Your task to perform on an android device: open the mobile data screen to see how much data has been used Image 0: 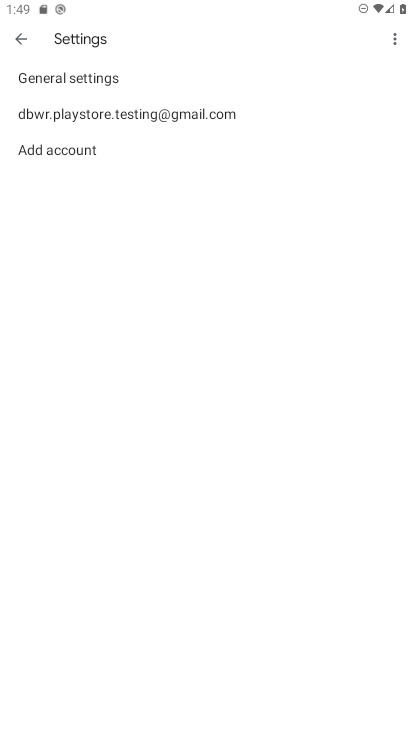
Step 0: press home button
Your task to perform on an android device: open the mobile data screen to see how much data has been used Image 1: 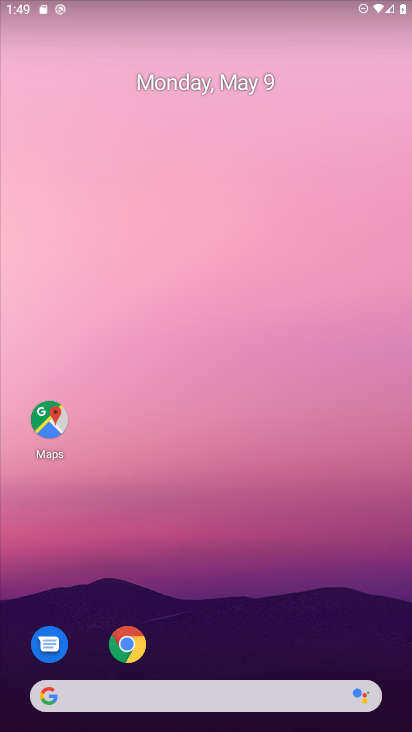
Step 1: drag from (271, 506) to (273, 240)
Your task to perform on an android device: open the mobile data screen to see how much data has been used Image 2: 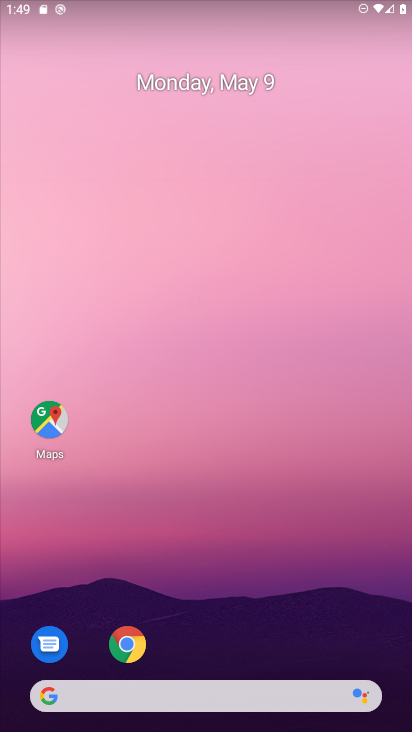
Step 2: drag from (254, 288) to (256, 70)
Your task to perform on an android device: open the mobile data screen to see how much data has been used Image 3: 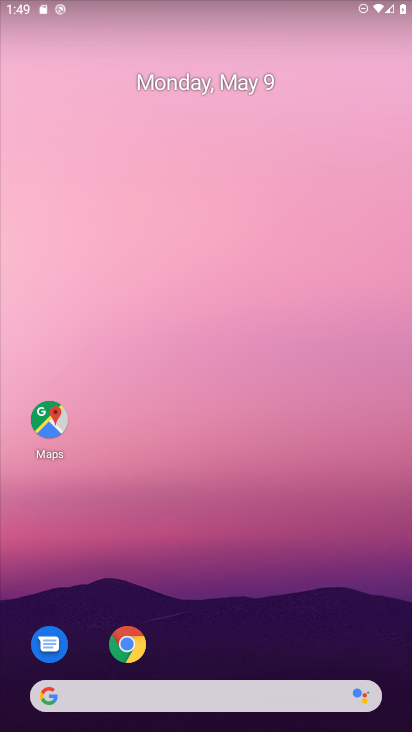
Step 3: drag from (230, 213) to (243, 162)
Your task to perform on an android device: open the mobile data screen to see how much data has been used Image 4: 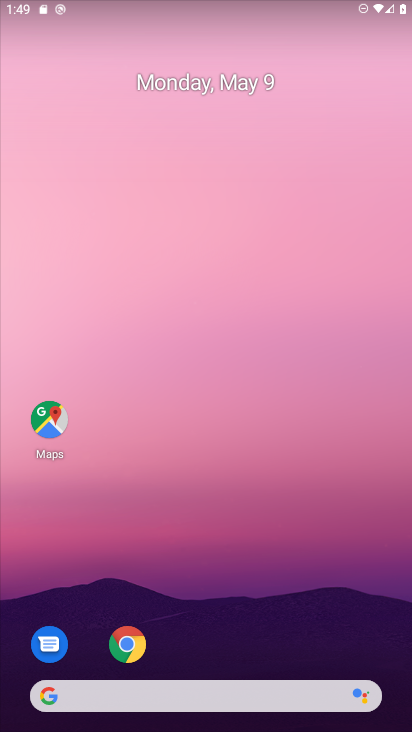
Step 4: drag from (261, 165) to (266, 72)
Your task to perform on an android device: open the mobile data screen to see how much data has been used Image 5: 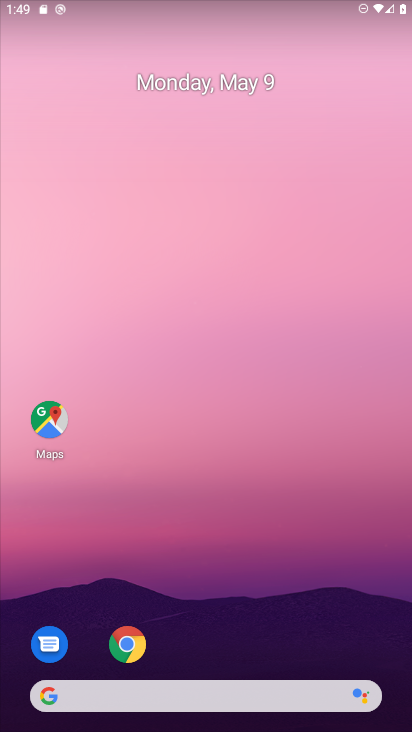
Step 5: drag from (260, 614) to (287, 340)
Your task to perform on an android device: open the mobile data screen to see how much data has been used Image 6: 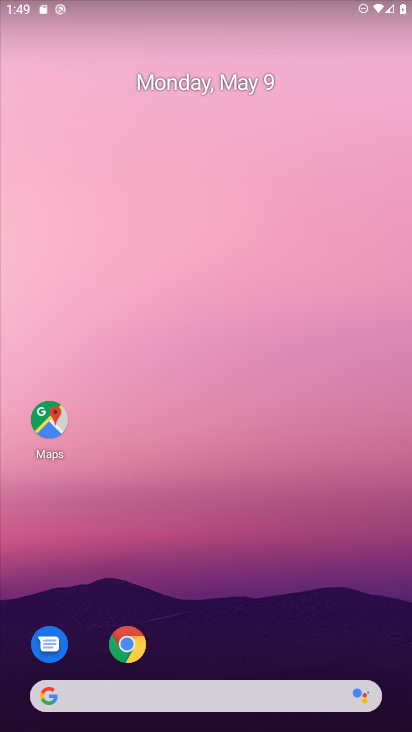
Step 6: drag from (274, 648) to (251, 33)
Your task to perform on an android device: open the mobile data screen to see how much data has been used Image 7: 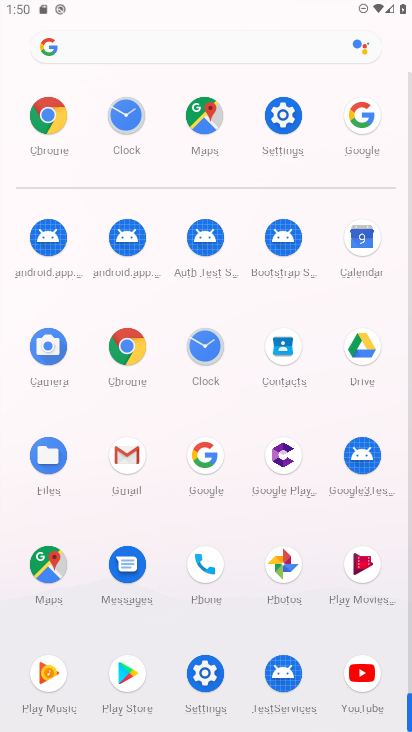
Step 7: click (292, 138)
Your task to perform on an android device: open the mobile data screen to see how much data has been used Image 8: 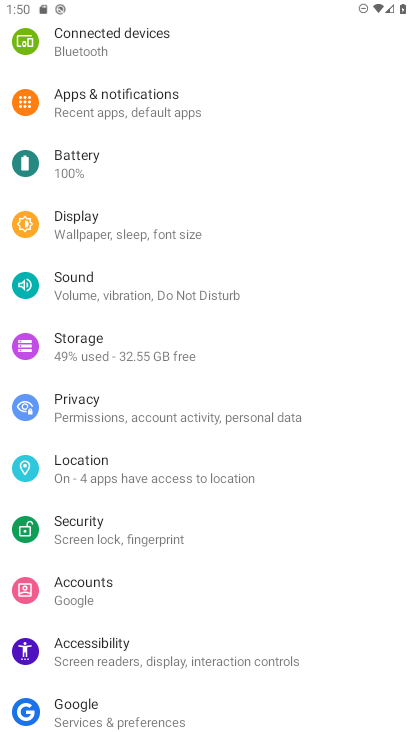
Step 8: drag from (211, 141) to (150, 530)
Your task to perform on an android device: open the mobile data screen to see how much data has been used Image 9: 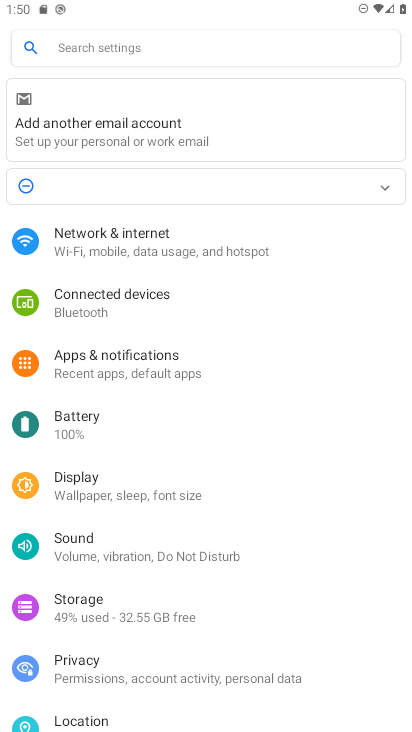
Step 9: click (136, 234)
Your task to perform on an android device: open the mobile data screen to see how much data has been used Image 10: 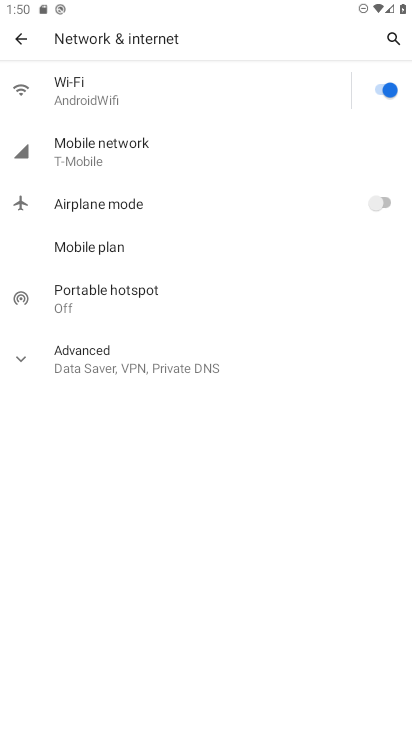
Step 10: click (95, 161)
Your task to perform on an android device: open the mobile data screen to see how much data has been used Image 11: 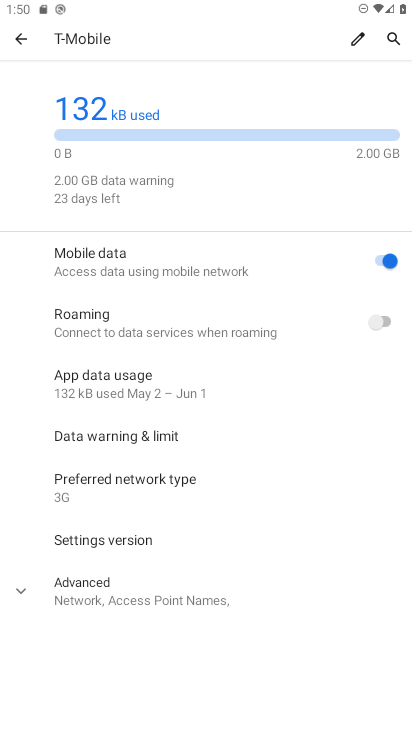
Step 11: task complete